Your task to perform on an android device: Play the last video I watched on Youtube Image 0: 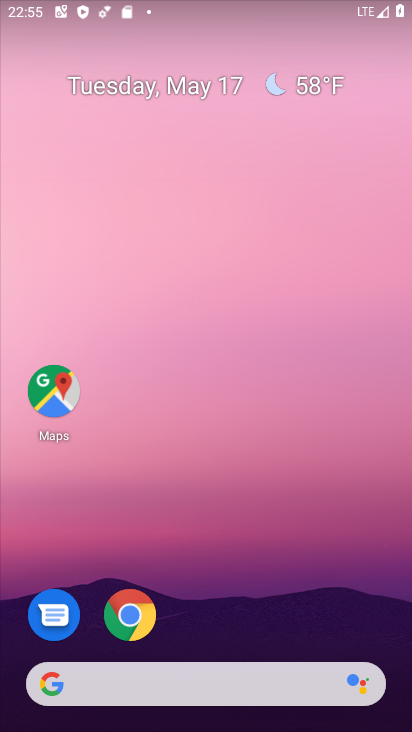
Step 0: drag from (238, 624) to (228, 161)
Your task to perform on an android device: Play the last video I watched on Youtube Image 1: 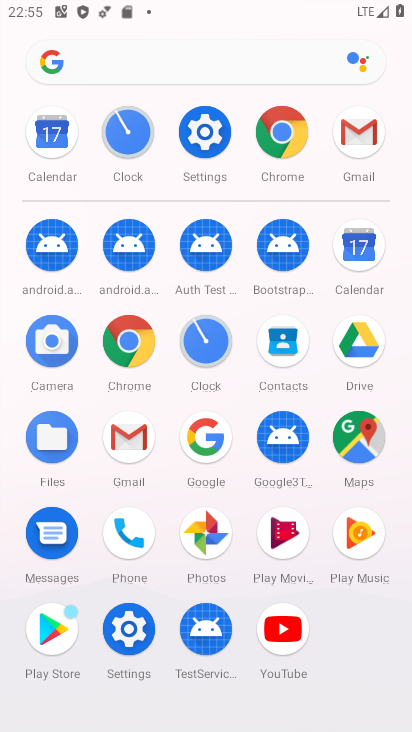
Step 1: click (277, 639)
Your task to perform on an android device: Play the last video I watched on Youtube Image 2: 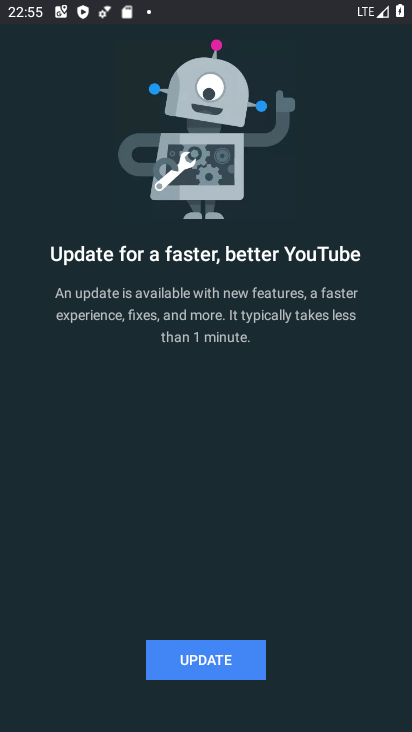
Step 2: click (202, 660)
Your task to perform on an android device: Play the last video I watched on Youtube Image 3: 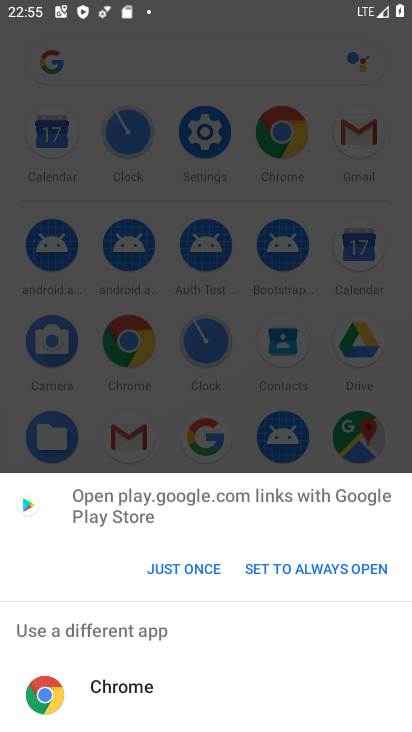
Step 3: click (149, 566)
Your task to perform on an android device: Play the last video I watched on Youtube Image 4: 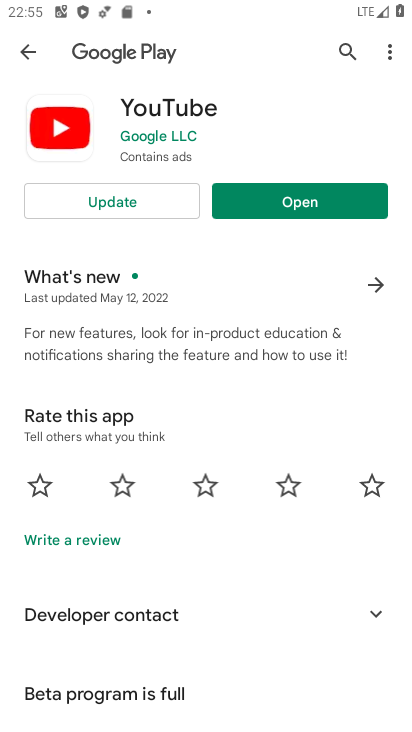
Step 4: click (152, 205)
Your task to perform on an android device: Play the last video I watched on Youtube Image 5: 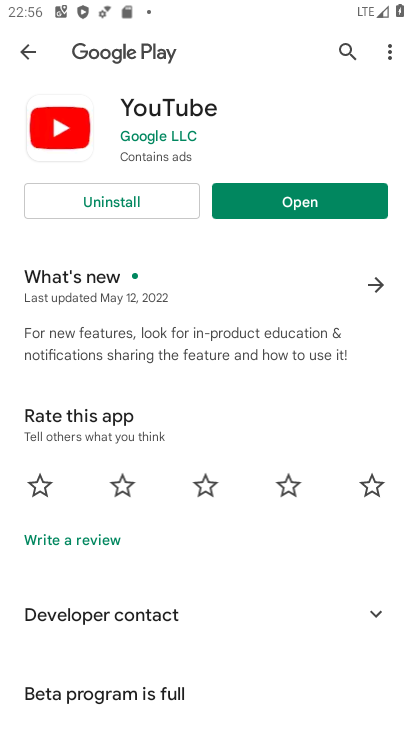
Step 5: click (303, 207)
Your task to perform on an android device: Play the last video I watched on Youtube Image 6: 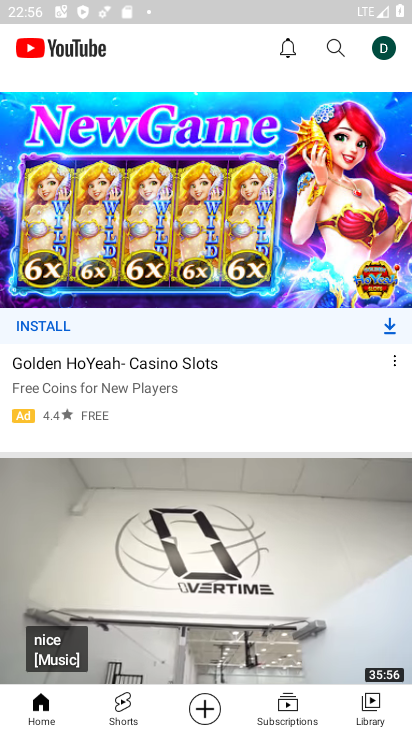
Step 6: click (392, 44)
Your task to perform on an android device: Play the last video I watched on Youtube Image 7: 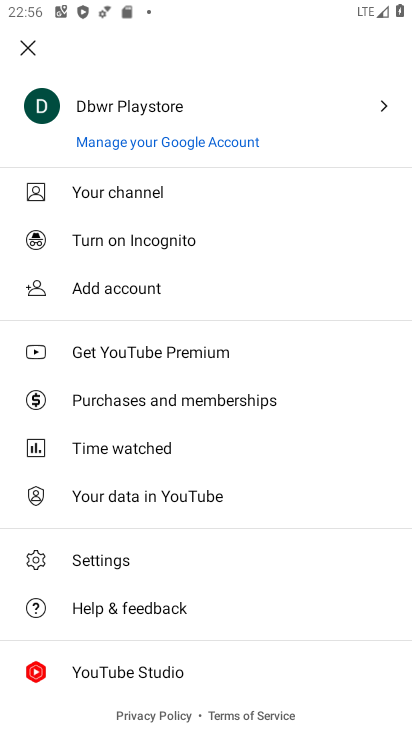
Step 7: click (27, 53)
Your task to perform on an android device: Play the last video I watched on Youtube Image 8: 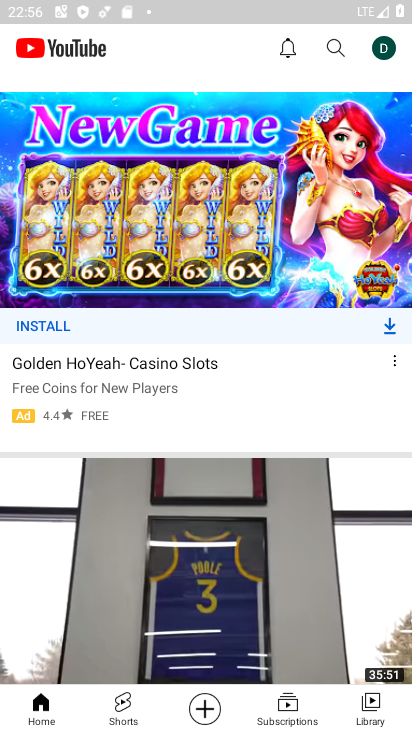
Step 8: click (362, 705)
Your task to perform on an android device: Play the last video I watched on Youtube Image 9: 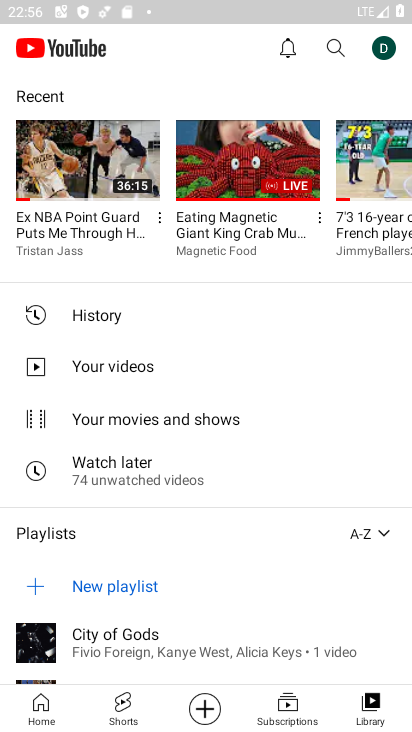
Step 9: click (89, 319)
Your task to perform on an android device: Play the last video I watched on Youtube Image 10: 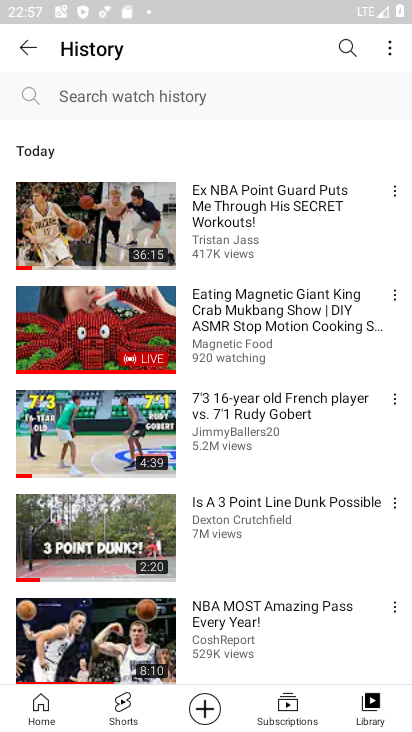
Step 10: task complete